Your task to perform on an android device: Go to Google Image 0: 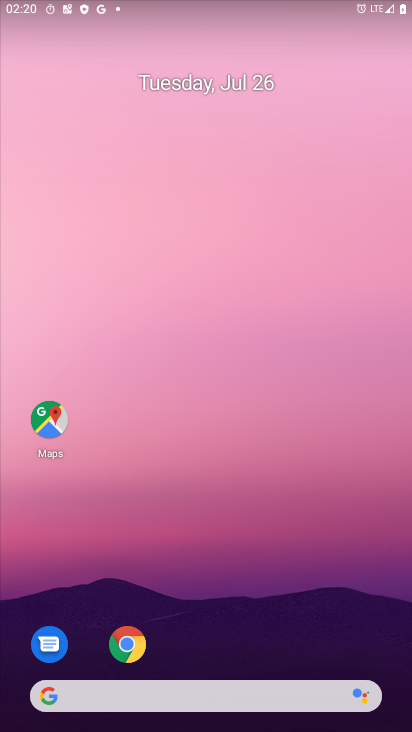
Step 0: drag from (206, 653) to (243, 91)
Your task to perform on an android device: Go to Google Image 1: 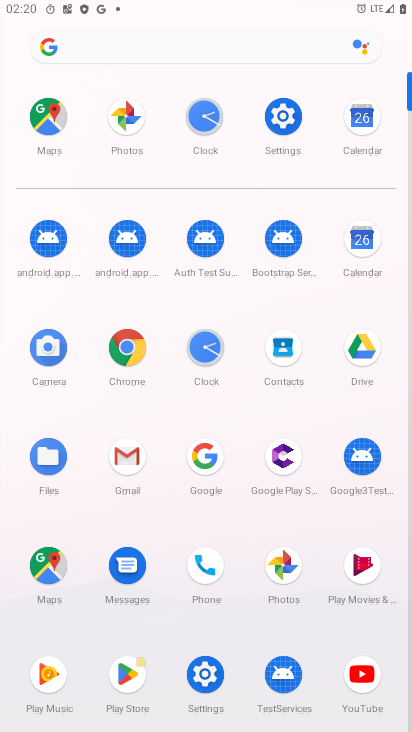
Step 1: click (204, 461)
Your task to perform on an android device: Go to Google Image 2: 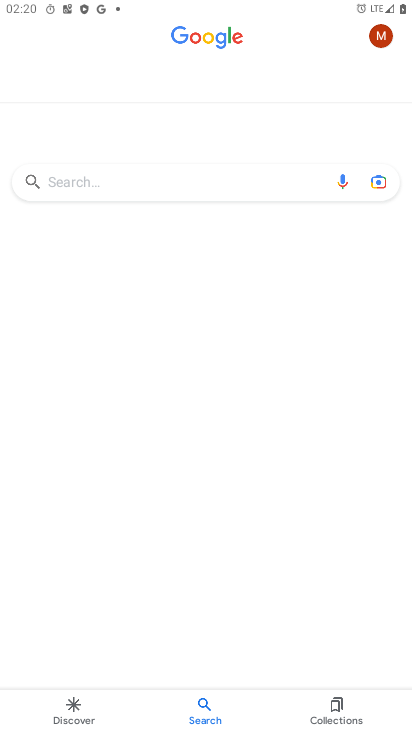
Step 2: task complete